Your task to perform on an android device: find snoozed emails in the gmail app Image 0: 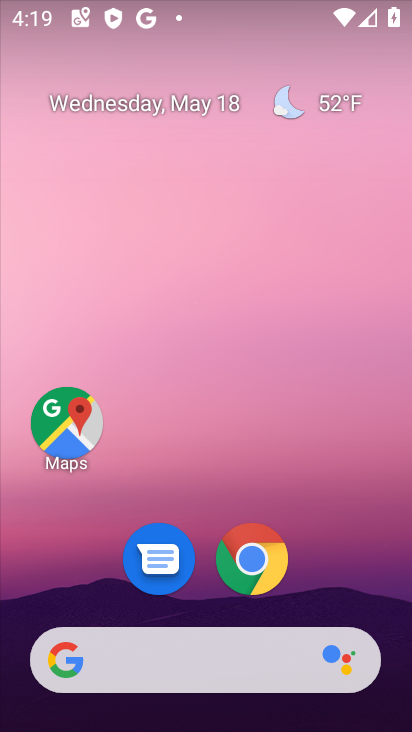
Step 0: drag from (208, 576) to (247, 55)
Your task to perform on an android device: find snoozed emails in the gmail app Image 1: 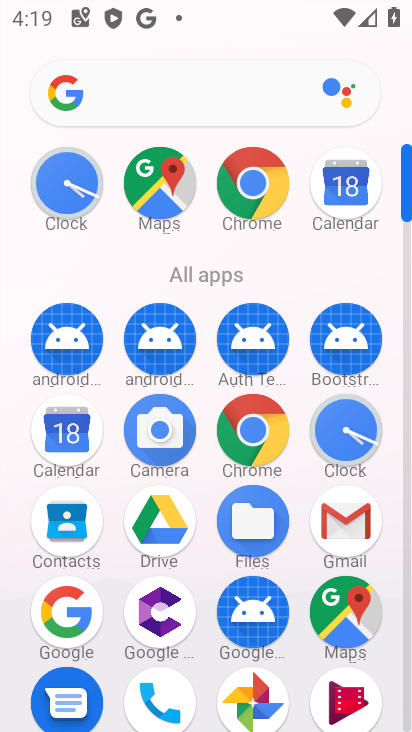
Step 1: click (340, 521)
Your task to perform on an android device: find snoozed emails in the gmail app Image 2: 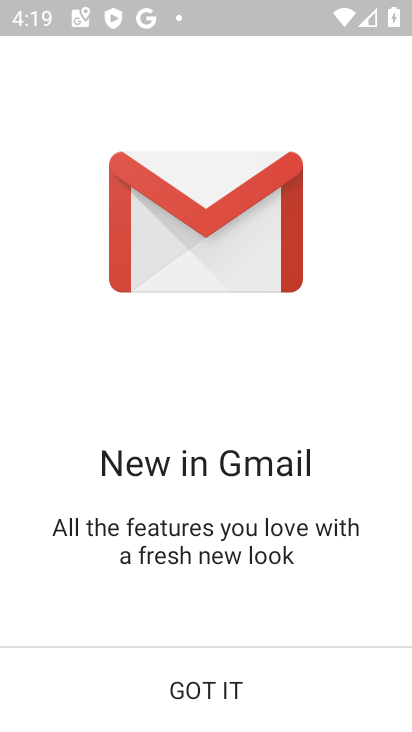
Step 2: click (180, 702)
Your task to perform on an android device: find snoozed emails in the gmail app Image 3: 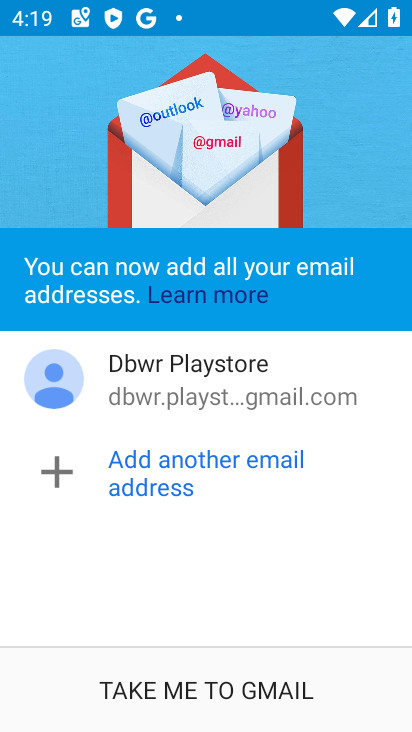
Step 3: click (180, 680)
Your task to perform on an android device: find snoozed emails in the gmail app Image 4: 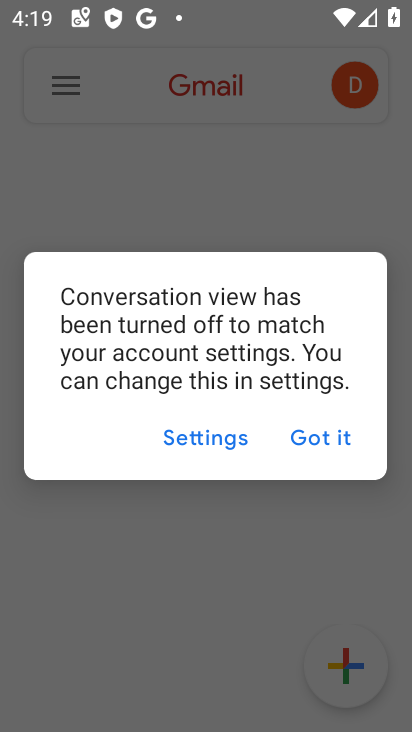
Step 4: click (320, 420)
Your task to perform on an android device: find snoozed emails in the gmail app Image 5: 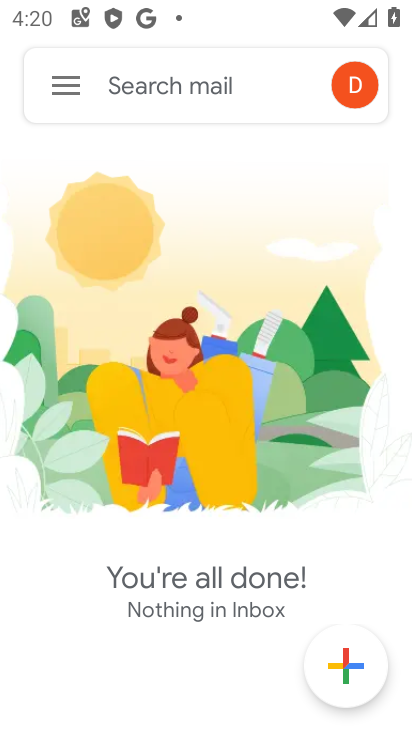
Step 5: click (65, 90)
Your task to perform on an android device: find snoozed emails in the gmail app Image 6: 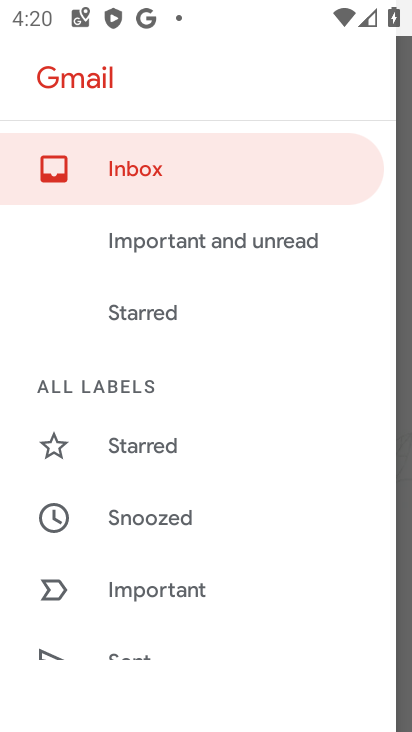
Step 6: click (124, 518)
Your task to perform on an android device: find snoozed emails in the gmail app Image 7: 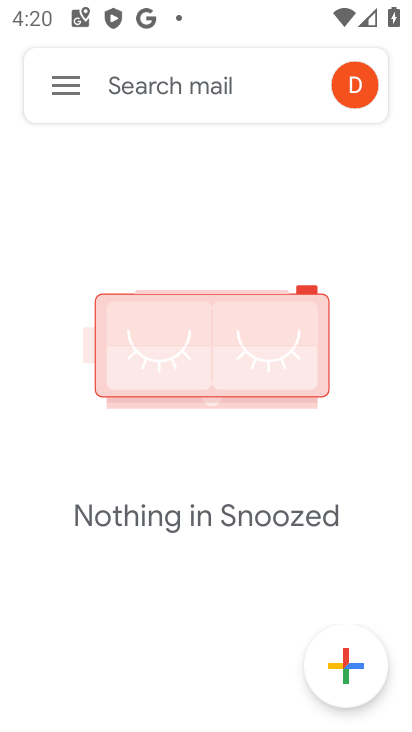
Step 7: task complete